Your task to perform on an android device: Open Wikipedia Image 0: 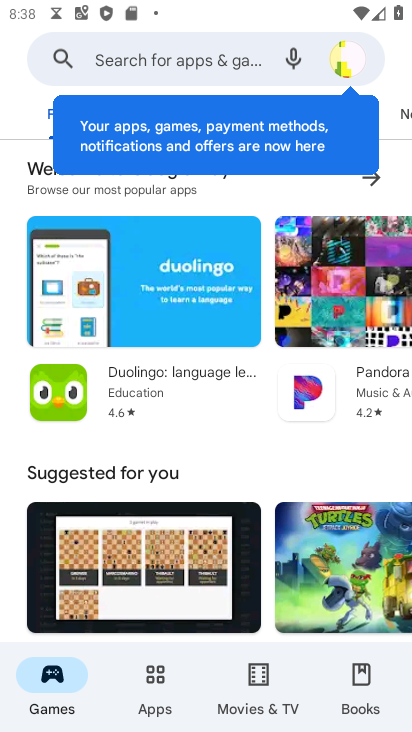
Step 0: press home button
Your task to perform on an android device: Open Wikipedia Image 1: 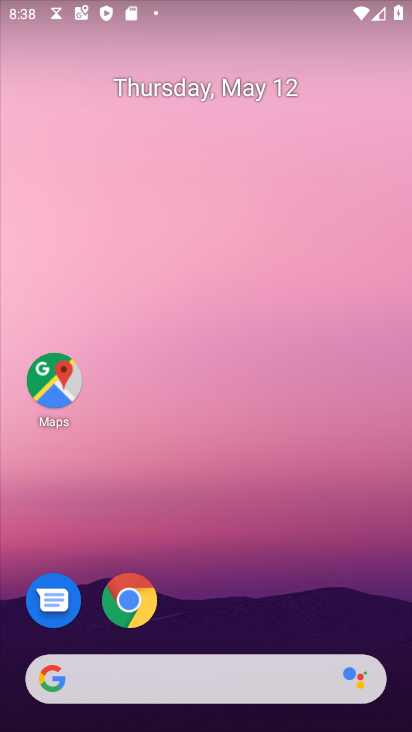
Step 1: click (134, 614)
Your task to perform on an android device: Open Wikipedia Image 2: 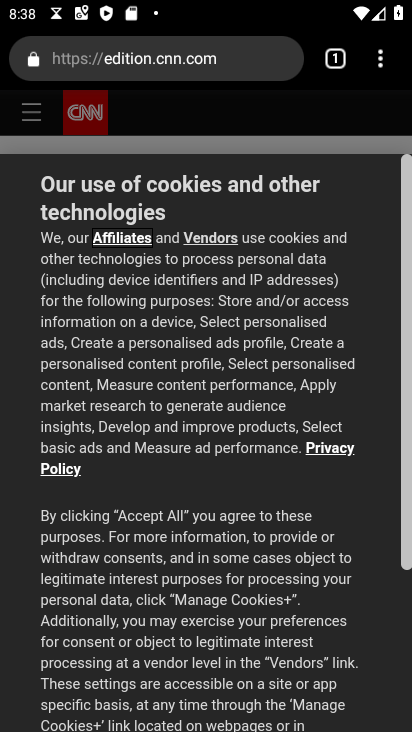
Step 2: press back button
Your task to perform on an android device: Open Wikipedia Image 3: 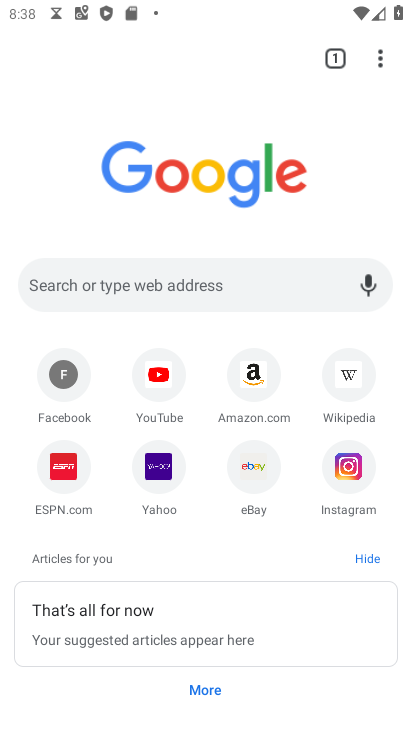
Step 3: click (366, 382)
Your task to perform on an android device: Open Wikipedia Image 4: 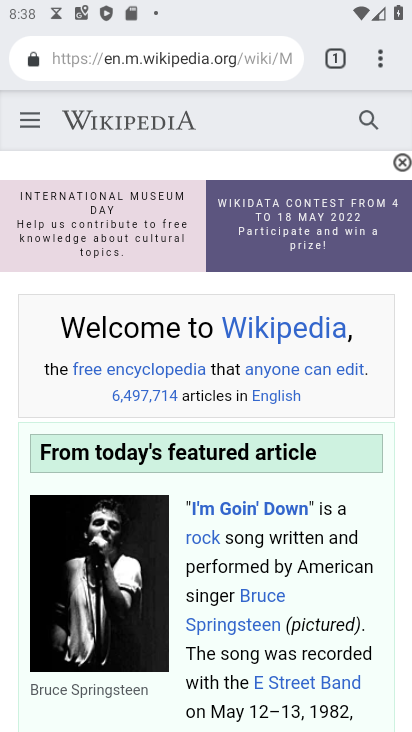
Step 4: task complete